Your task to perform on an android device: Go to Yahoo.com Image 0: 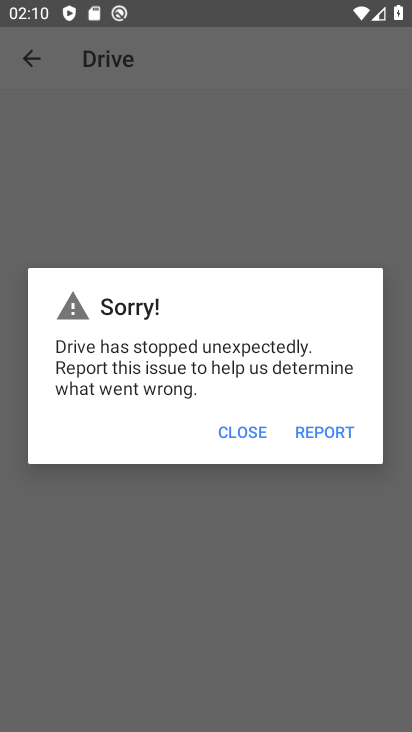
Step 0: drag from (260, 613) to (322, 89)
Your task to perform on an android device: Go to Yahoo.com Image 1: 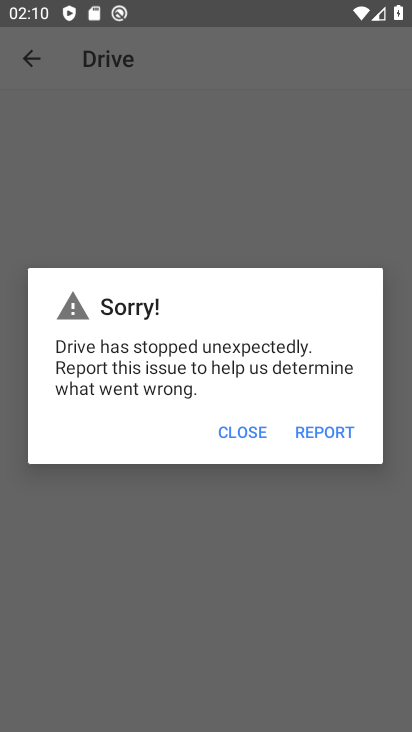
Step 1: press home button
Your task to perform on an android device: Go to Yahoo.com Image 2: 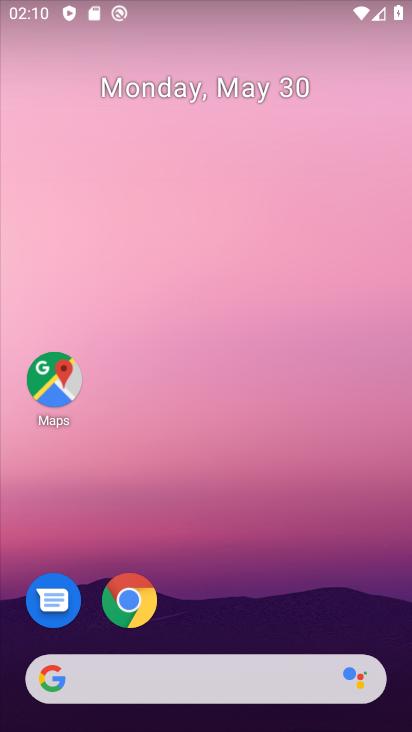
Step 2: drag from (234, 624) to (265, 5)
Your task to perform on an android device: Go to Yahoo.com Image 3: 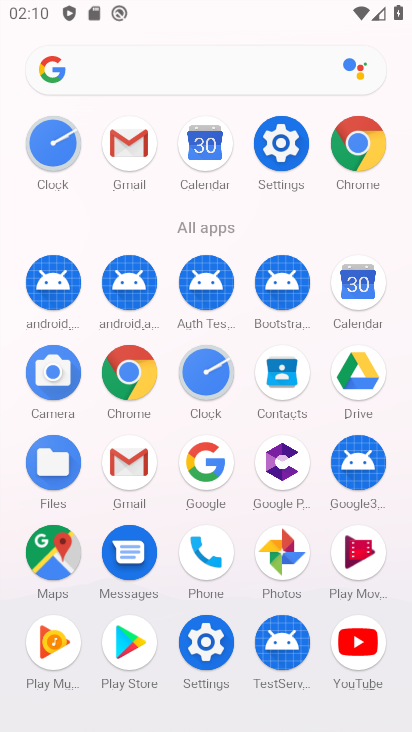
Step 3: click (355, 145)
Your task to perform on an android device: Go to Yahoo.com Image 4: 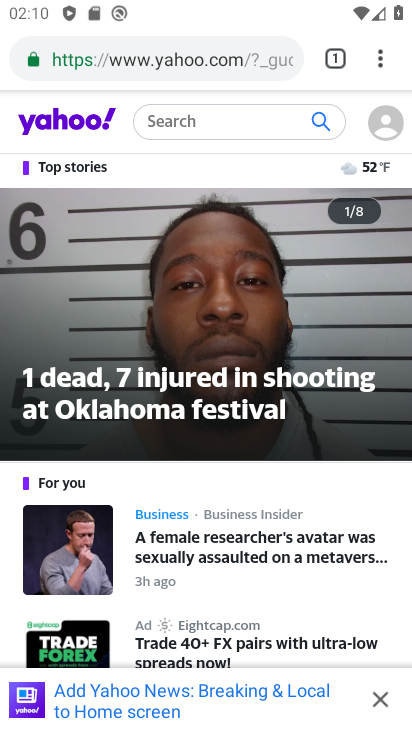
Step 4: task complete